Your task to perform on an android device: Go to sound settings Image 0: 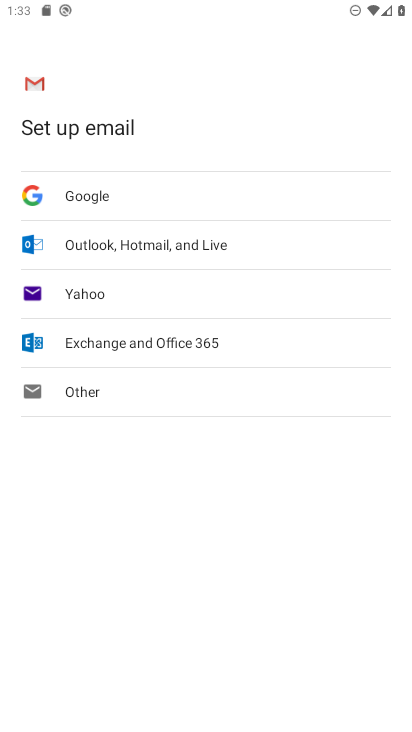
Step 0: press home button
Your task to perform on an android device: Go to sound settings Image 1: 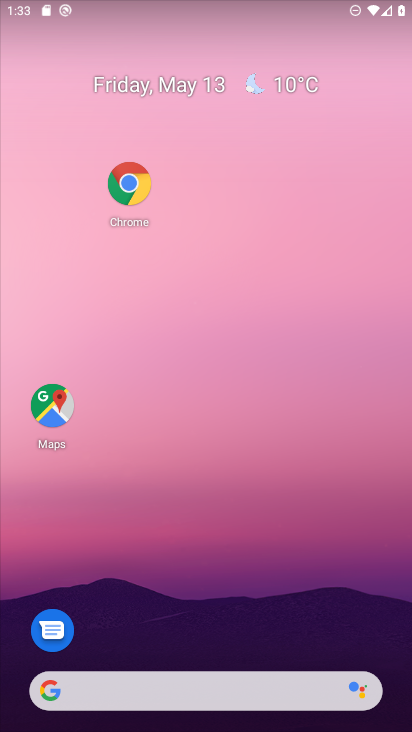
Step 1: drag from (172, 685) to (205, 417)
Your task to perform on an android device: Go to sound settings Image 2: 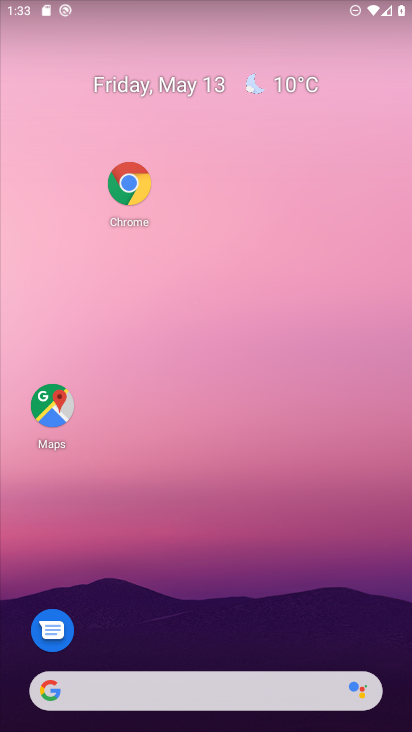
Step 2: drag from (187, 670) to (197, 194)
Your task to perform on an android device: Go to sound settings Image 3: 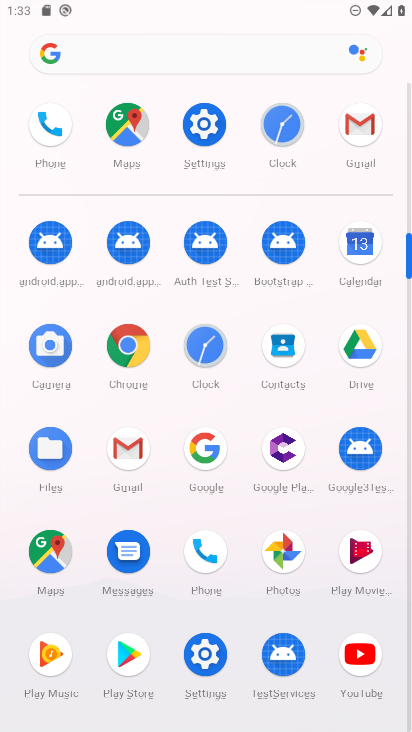
Step 3: click (201, 138)
Your task to perform on an android device: Go to sound settings Image 4: 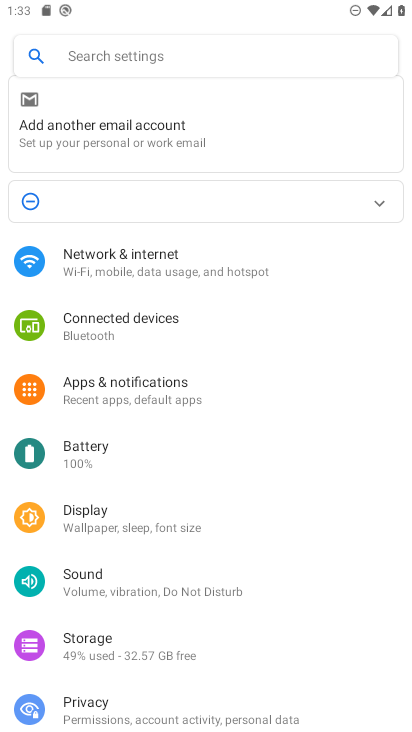
Step 4: click (90, 571)
Your task to perform on an android device: Go to sound settings Image 5: 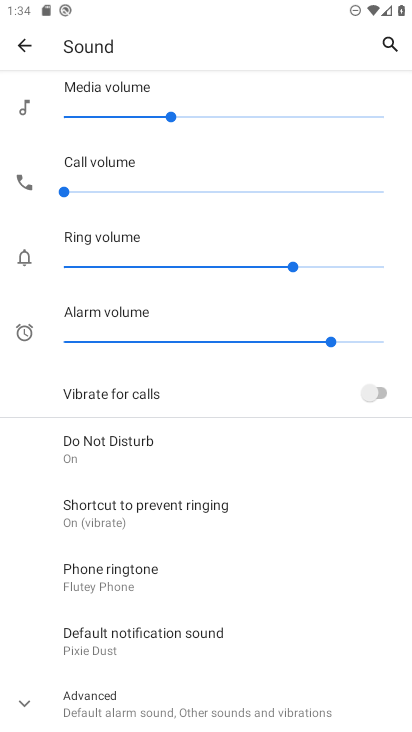
Step 5: task complete